Your task to perform on an android device: Show me the alarms in the clock app Image 0: 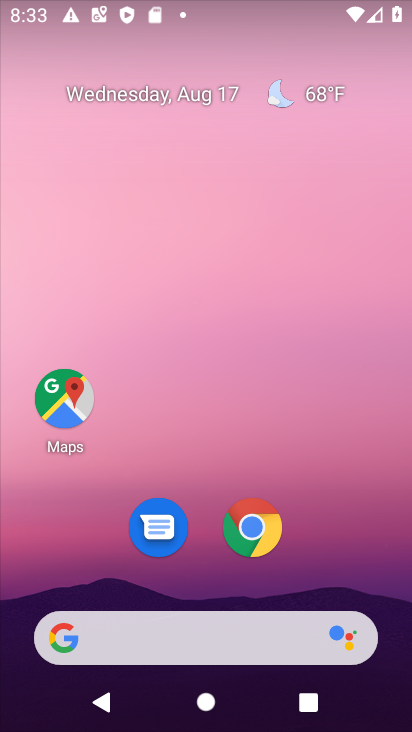
Step 0: click (191, 38)
Your task to perform on an android device: Show me the alarms in the clock app Image 1: 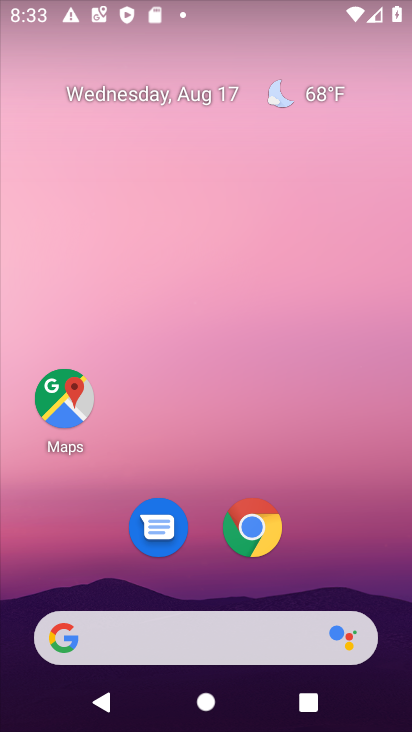
Step 1: drag from (171, 586) to (168, 121)
Your task to perform on an android device: Show me the alarms in the clock app Image 2: 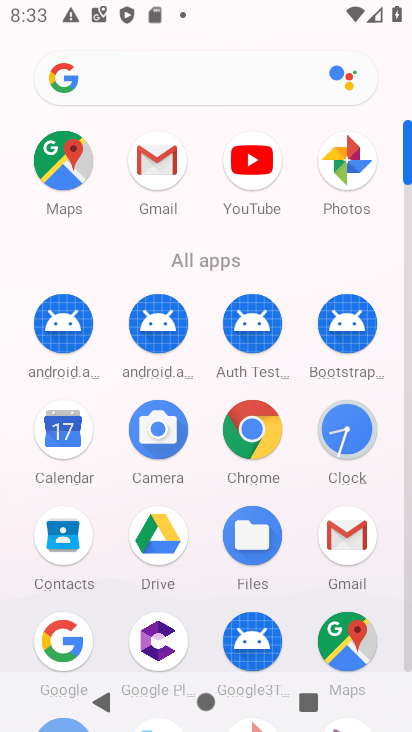
Step 2: click (344, 428)
Your task to perform on an android device: Show me the alarms in the clock app Image 3: 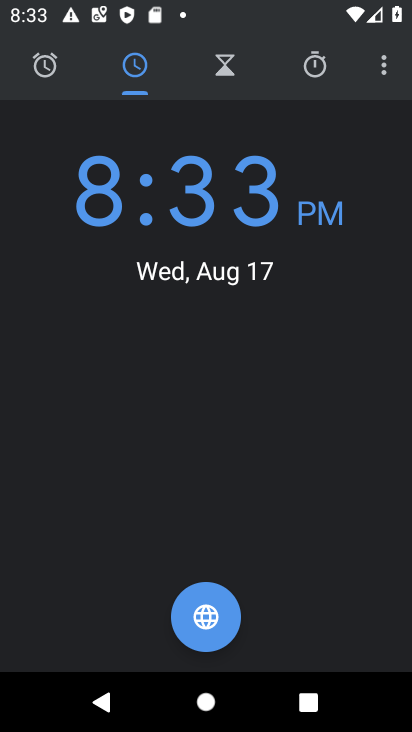
Step 3: click (52, 71)
Your task to perform on an android device: Show me the alarms in the clock app Image 4: 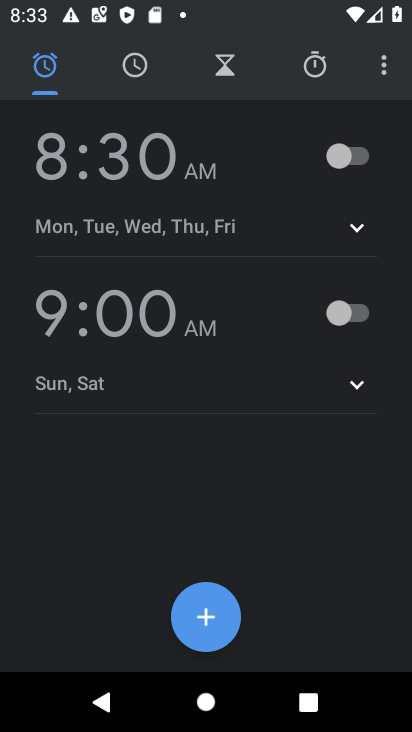
Step 4: task complete